Your task to perform on an android device: Go to Amazon Image 0: 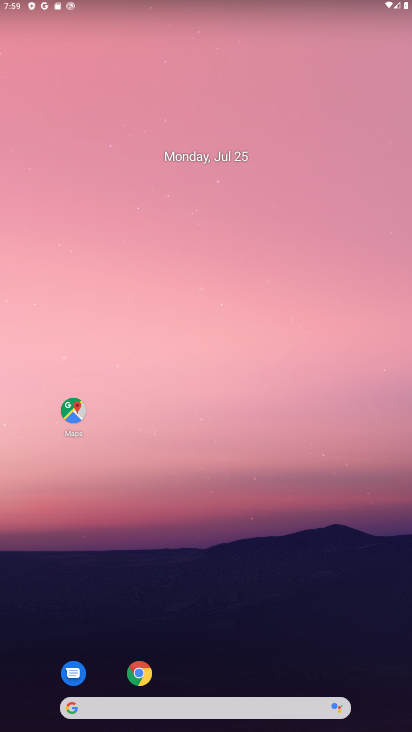
Step 0: click (145, 682)
Your task to perform on an android device: Go to Amazon Image 1: 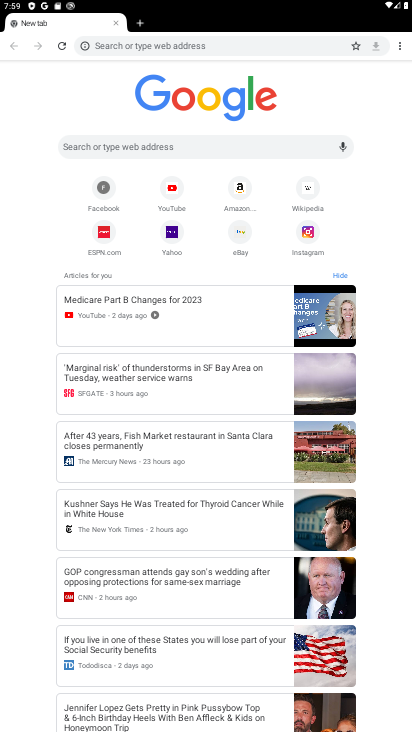
Step 1: click (234, 194)
Your task to perform on an android device: Go to Amazon Image 2: 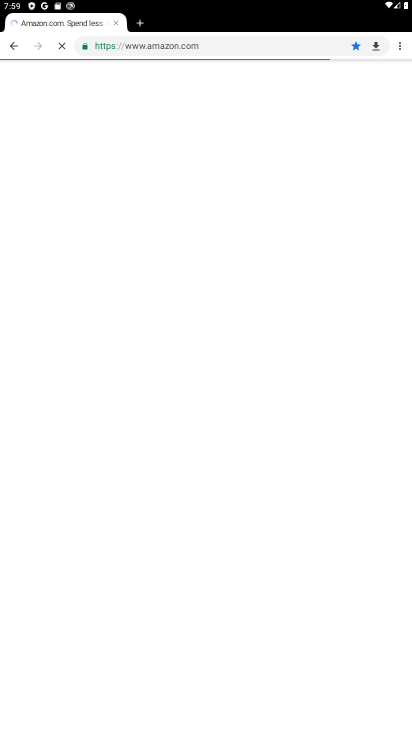
Step 2: task complete